Your task to perform on an android device: check google app version Image 0: 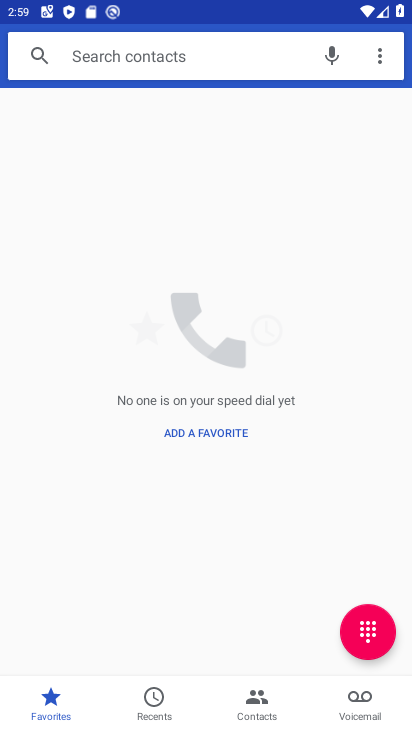
Step 0: press home button
Your task to perform on an android device: check google app version Image 1: 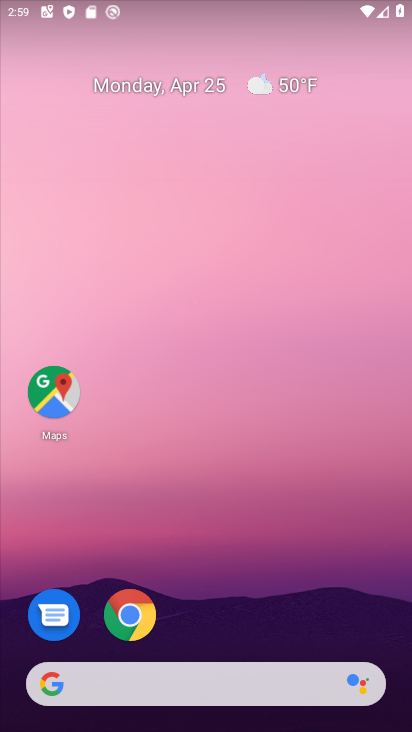
Step 1: drag from (225, 718) to (223, 247)
Your task to perform on an android device: check google app version Image 2: 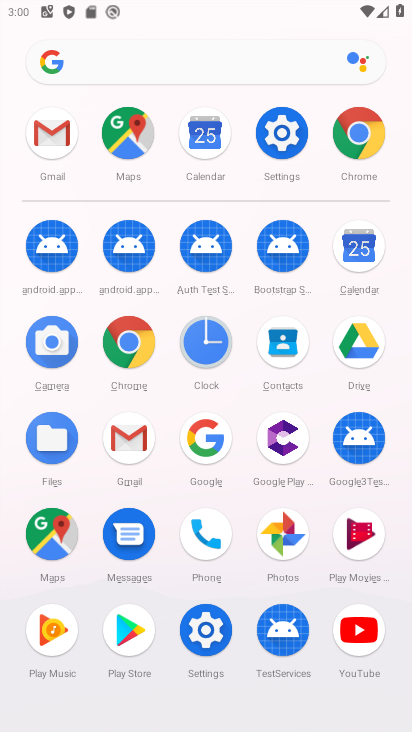
Step 2: drag from (237, 562) to (223, 123)
Your task to perform on an android device: check google app version Image 3: 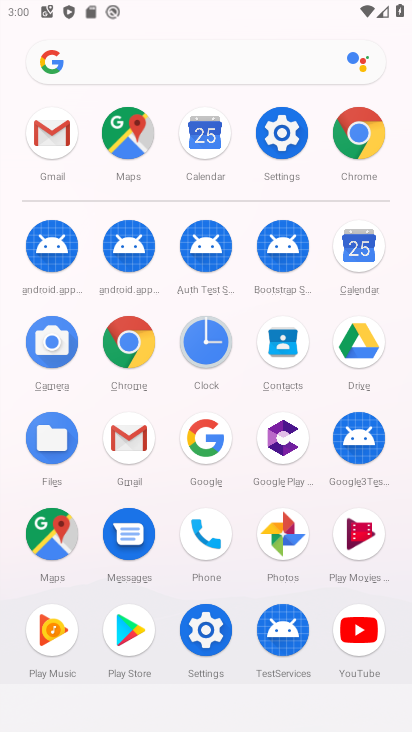
Step 3: click (210, 441)
Your task to perform on an android device: check google app version Image 4: 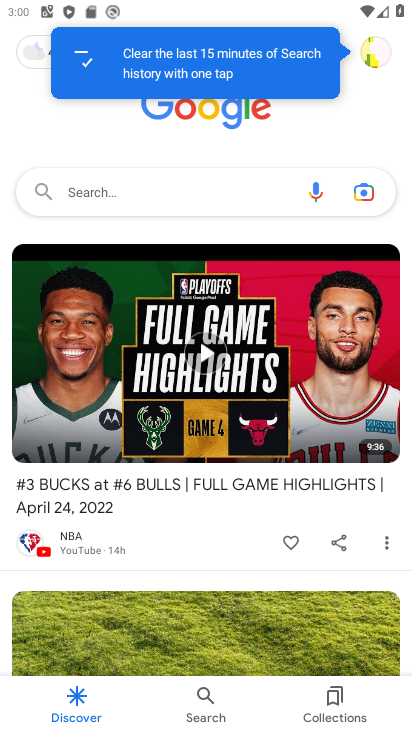
Step 4: click (33, 47)
Your task to perform on an android device: check google app version Image 5: 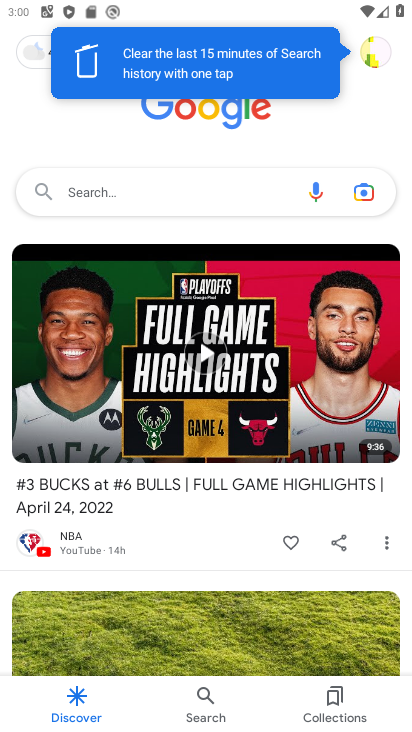
Step 5: click (380, 56)
Your task to perform on an android device: check google app version Image 6: 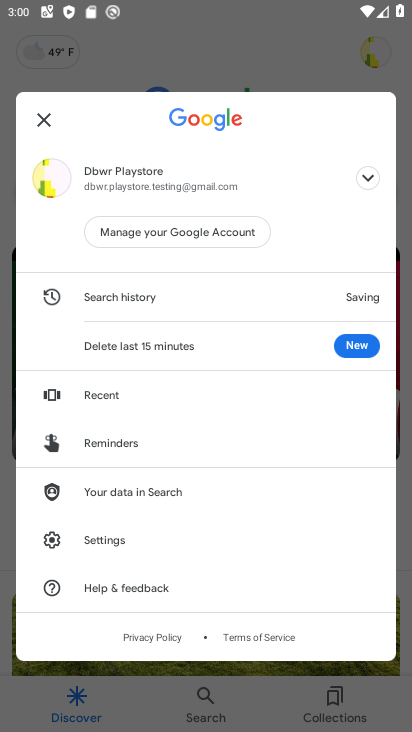
Step 6: click (86, 534)
Your task to perform on an android device: check google app version Image 7: 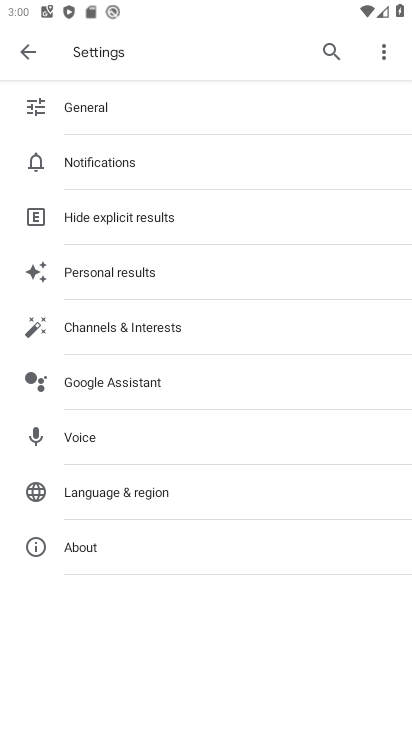
Step 7: click (81, 544)
Your task to perform on an android device: check google app version Image 8: 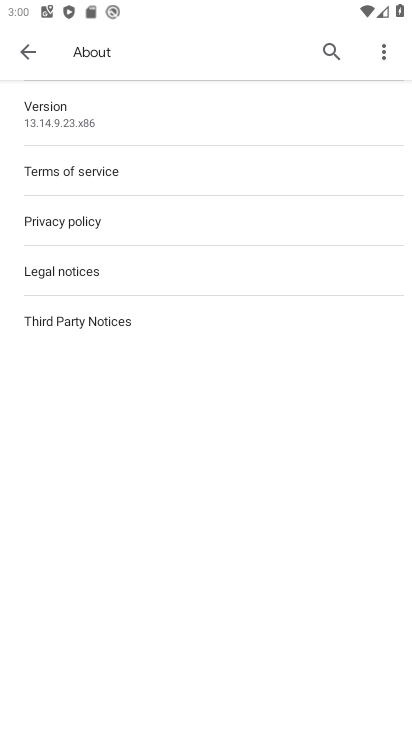
Step 8: task complete